Your task to perform on an android device: find snoozed emails in the gmail app Image 0: 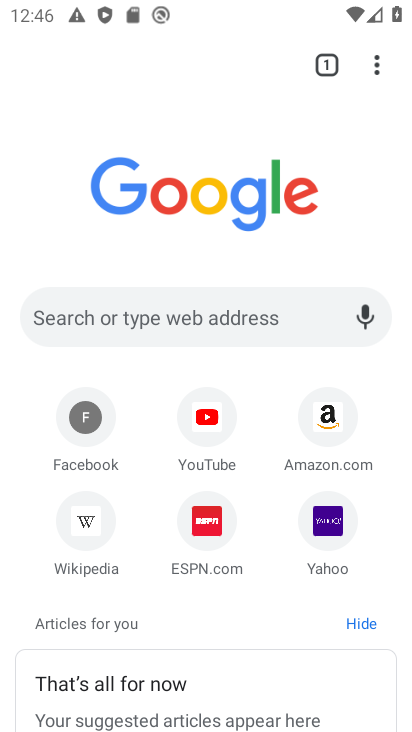
Step 0: press home button
Your task to perform on an android device: find snoozed emails in the gmail app Image 1: 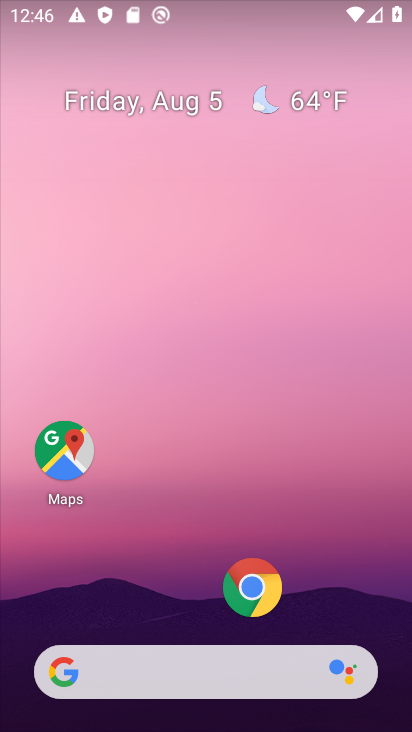
Step 1: drag from (172, 698) to (134, 26)
Your task to perform on an android device: find snoozed emails in the gmail app Image 2: 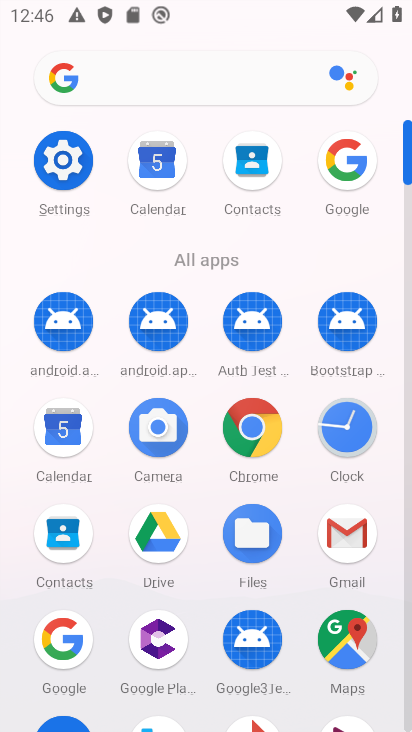
Step 2: click (332, 514)
Your task to perform on an android device: find snoozed emails in the gmail app Image 3: 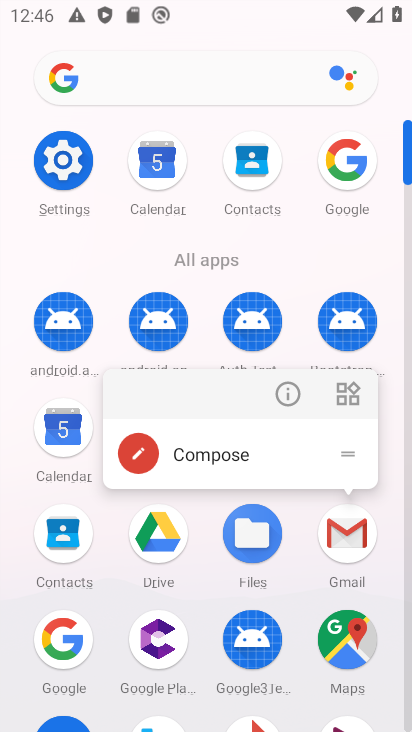
Step 3: click (336, 525)
Your task to perform on an android device: find snoozed emails in the gmail app Image 4: 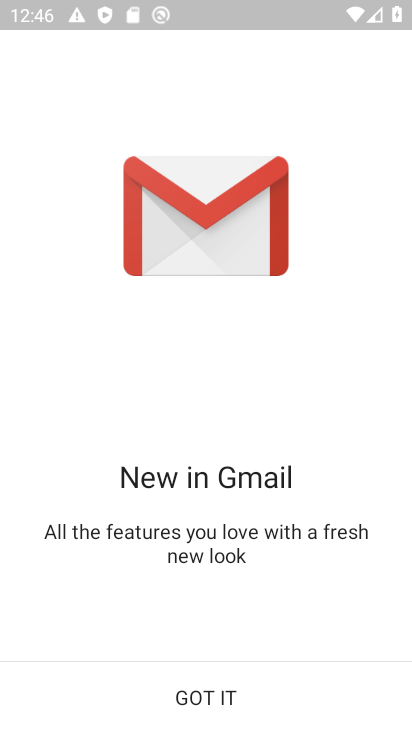
Step 4: click (169, 699)
Your task to perform on an android device: find snoozed emails in the gmail app Image 5: 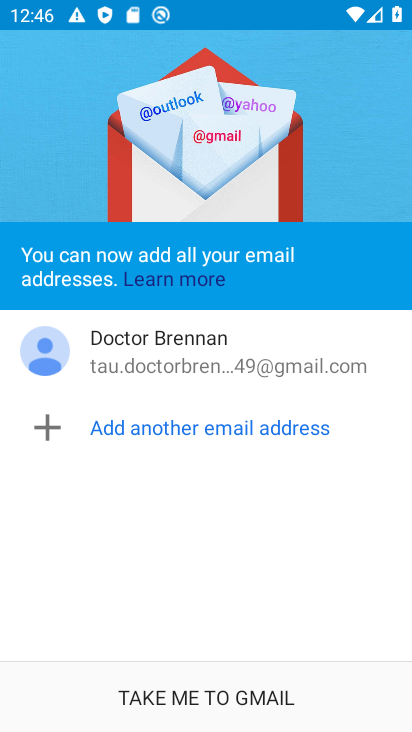
Step 5: click (169, 699)
Your task to perform on an android device: find snoozed emails in the gmail app Image 6: 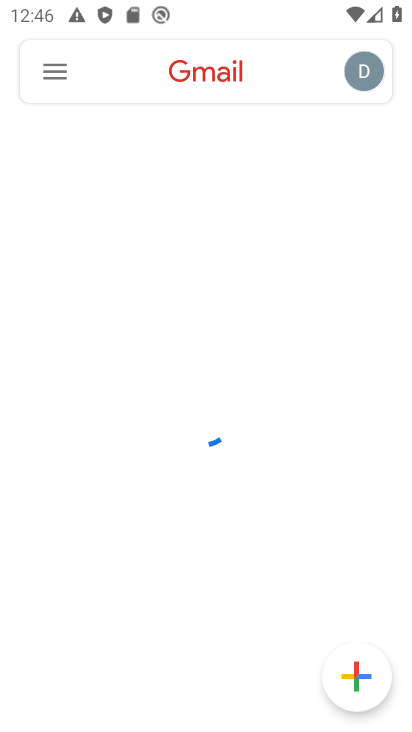
Step 6: click (47, 69)
Your task to perform on an android device: find snoozed emails in the gmail app Image 7: 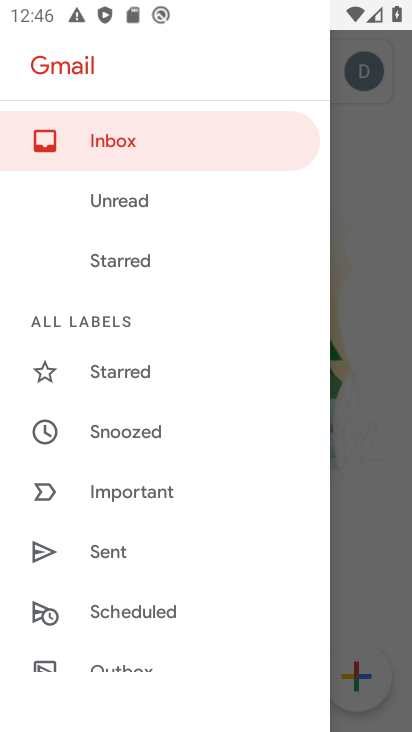
Step 7: click (183, 430)
Your task to perform on an android device: find snoozed emails in the gmail app Image 8: 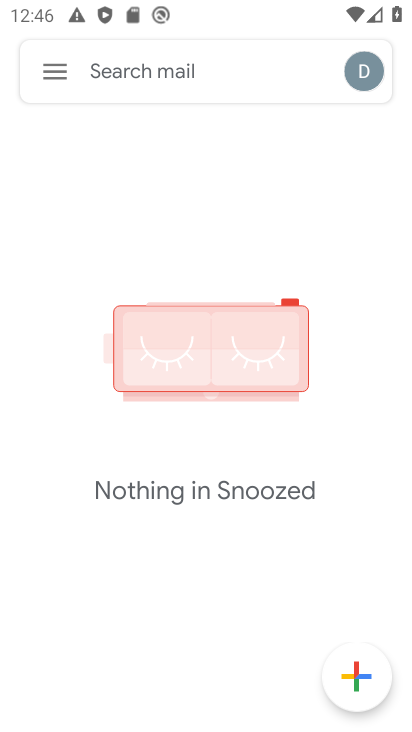
Step 8: task complete